Your task to perform on an android device: Show me productivity apps on the Play Store Image 0: 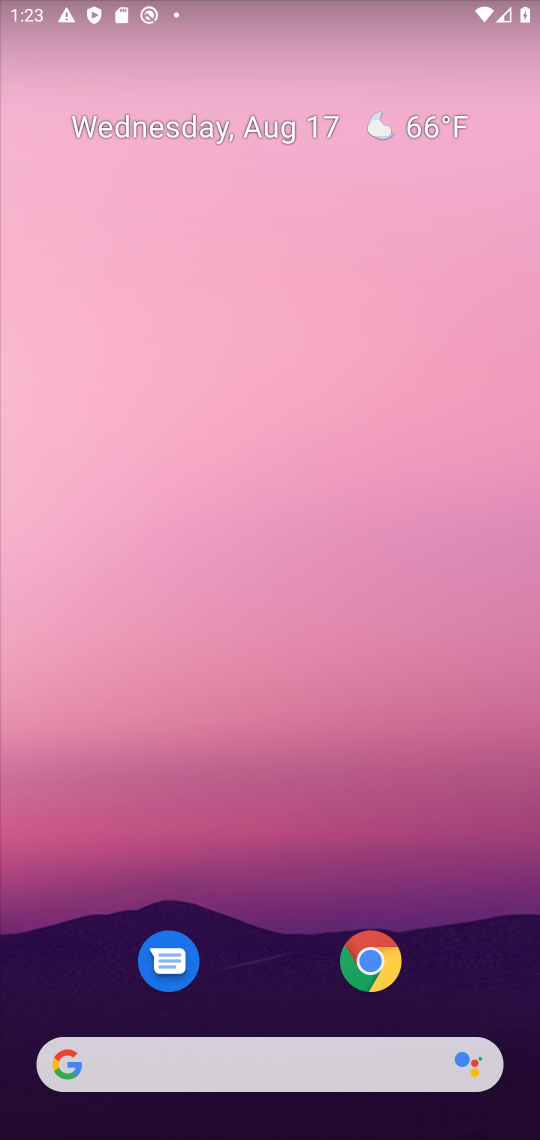
Step 0: drag from (288, 1083) to (239, 409)
Your task to perform on an android device: Show me productivity apps on the Play Store Image 1: 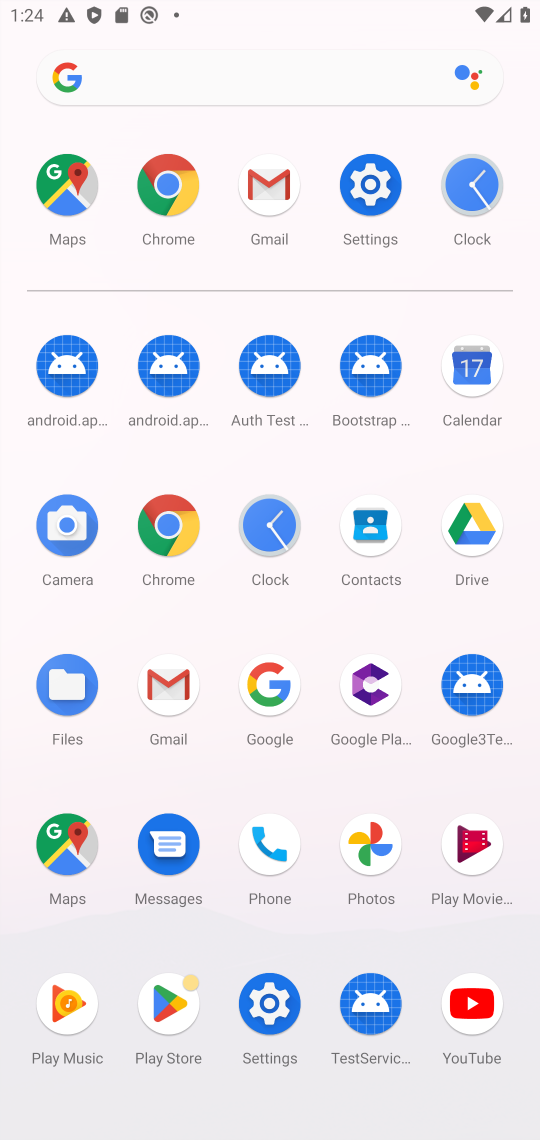
Step 1: click (191, 1011)
Your task to perform on an android device: Show me productivity apps on the Play Store Image 2: 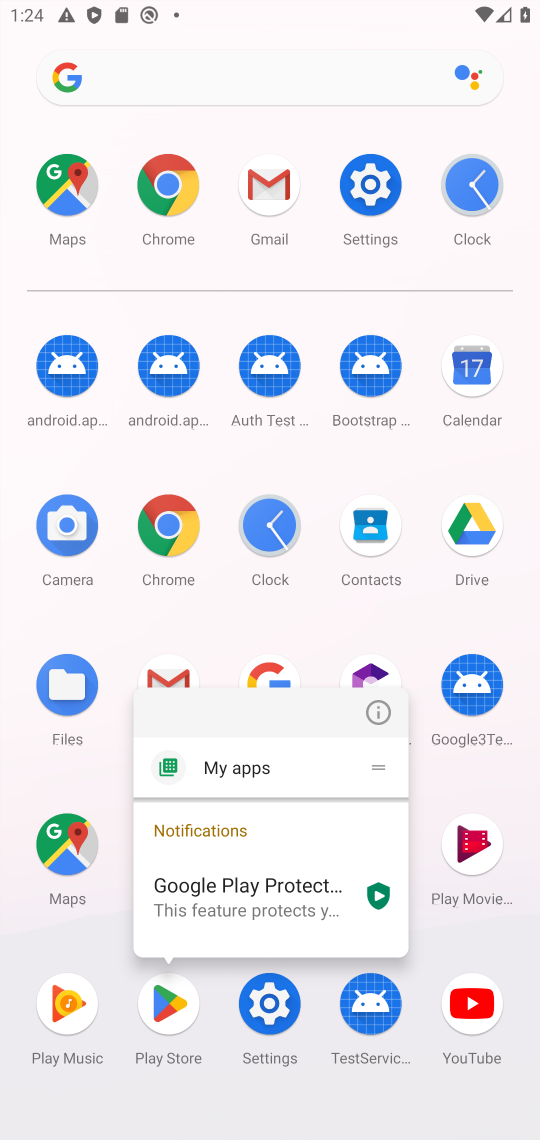
Step 2: click (158, 1002)
Your task to perform on an android device: Show me productivity apps on the Play Store Image 3: 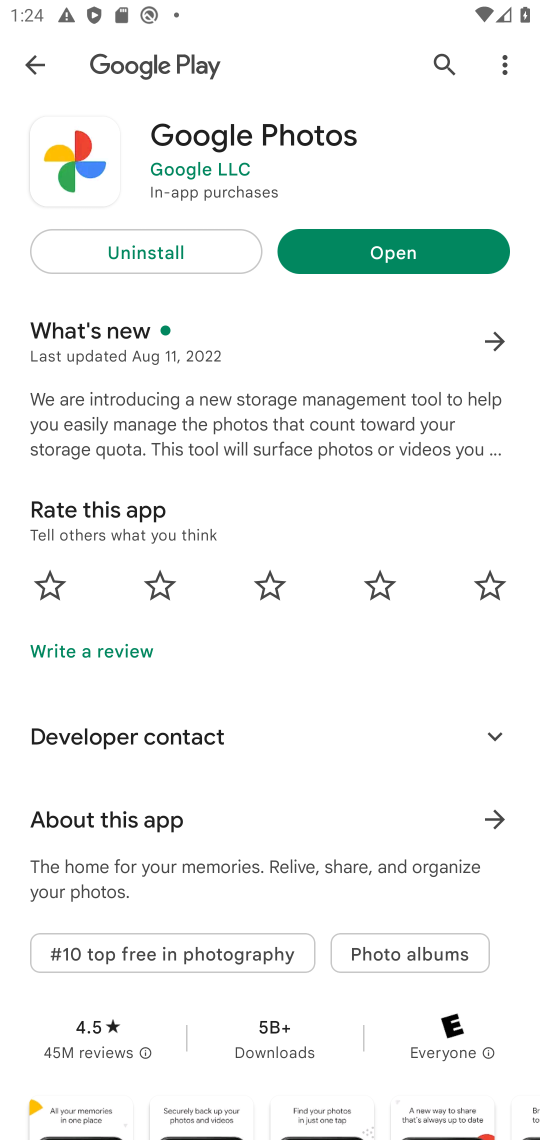
Step 3: click (40, 77)
Your task to perform on an android device: Show me productivity apps on the Play Store Image 4: 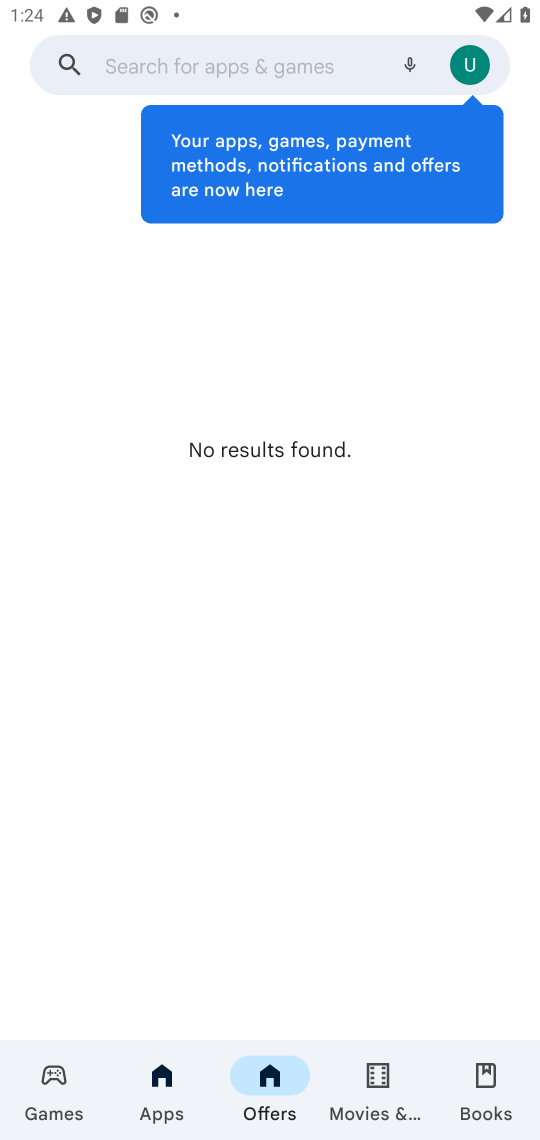
Step 4: click (138, 78)
Your task to perform on an android device: Show me productivity apps on the Play Store Image 5: 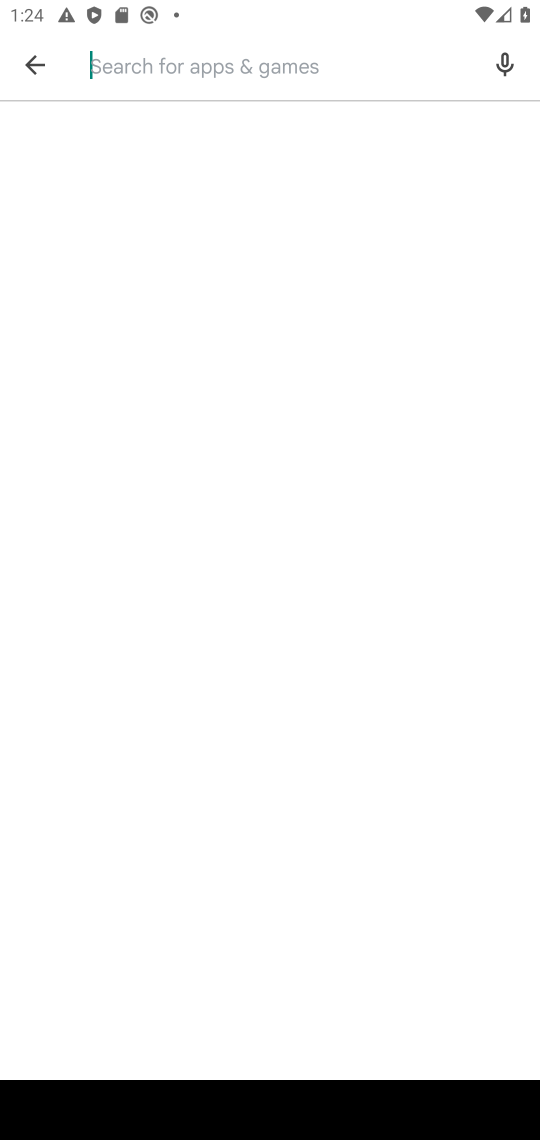
Step 5: type "productivity apps"
Your task to perform on an android device: Show me productivity apps on the Play Store Image 6: 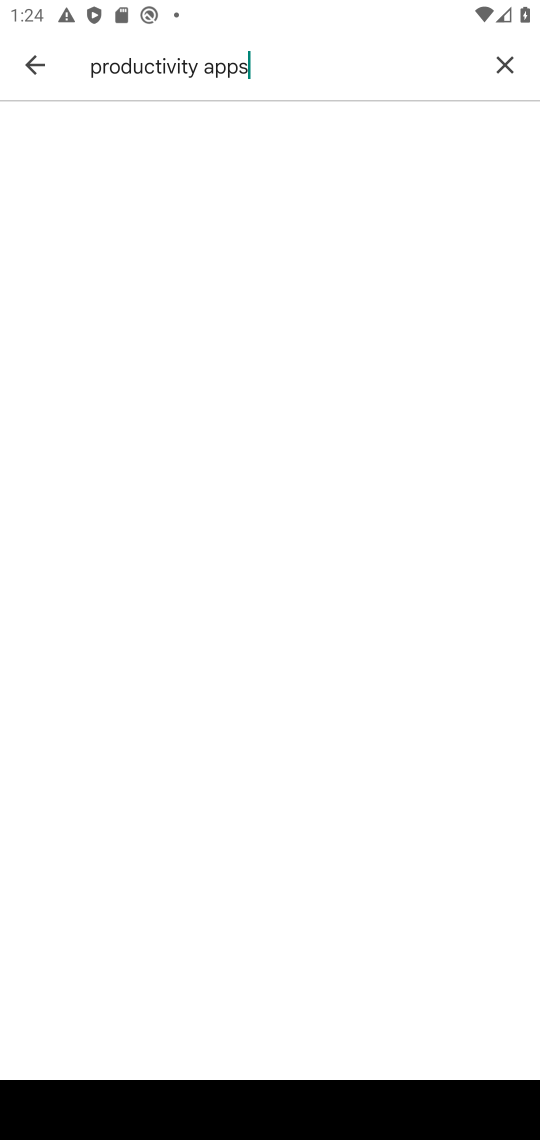
Step 6: type ""
Your task to perform on an android device: Show me productivity apps on the Play Store Image 7: 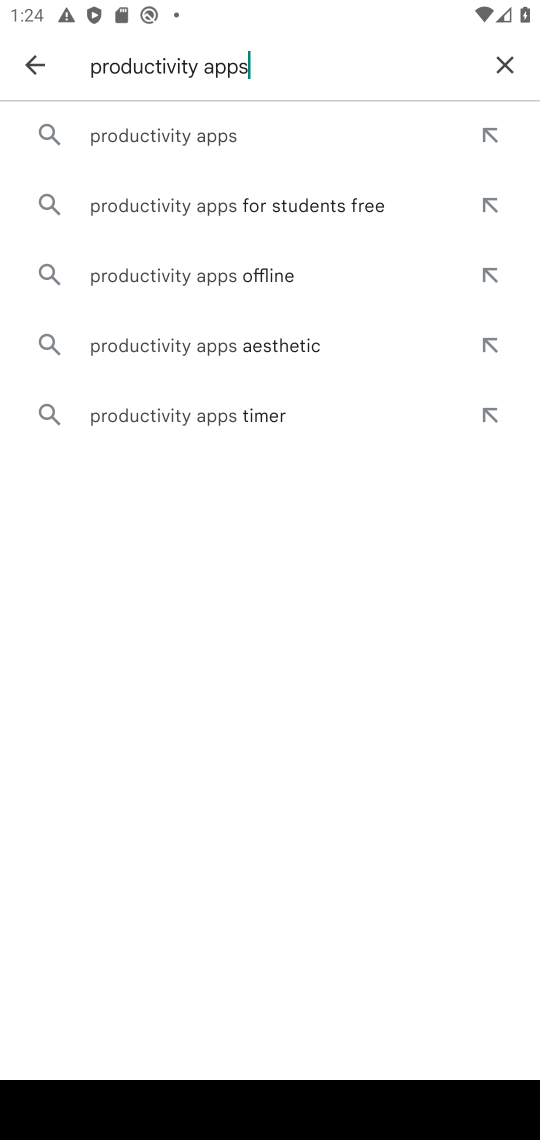
Step 7: click (224, 138)
Your task to perform on an android device: Show me productivity apps on the Play Store Image 8: 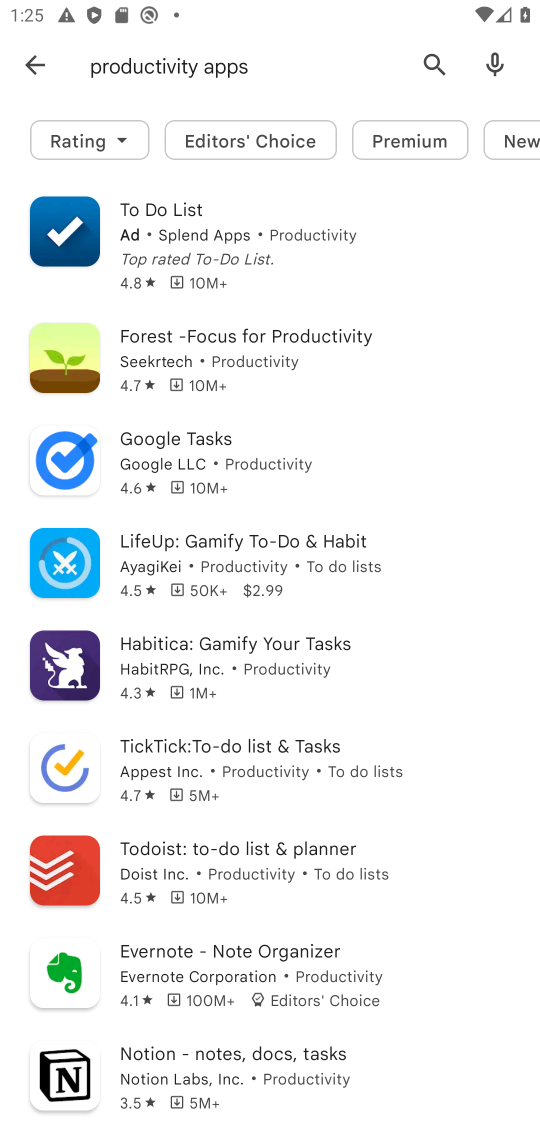
Step 8: task complete